Your task to perform on an android device: add a label to a message in the gmail app Image 0: 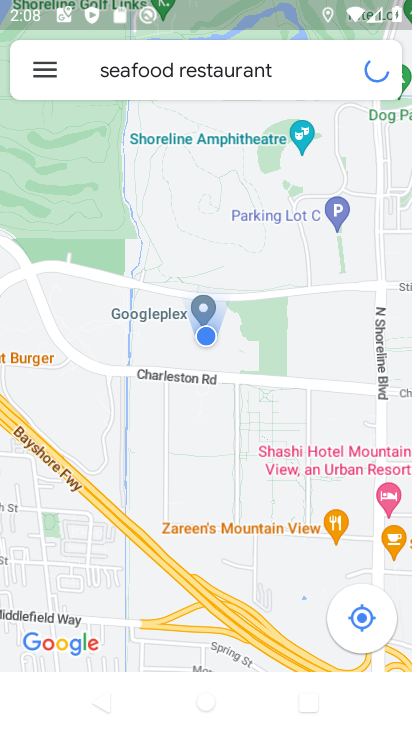
Step 0: press home button
Your task to perform on an android device: add a label to a message in the gmail app Image 1: 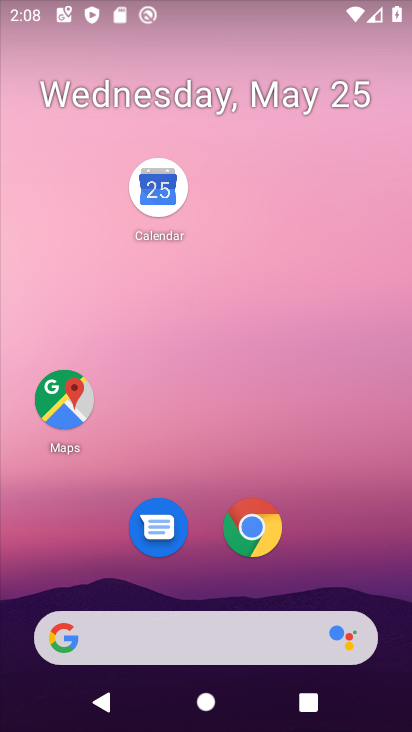
Step 1: drag from (348, 596) to (308, 119)
Your task to perform on an android device: add a label to a message in the gmail app Image 2: 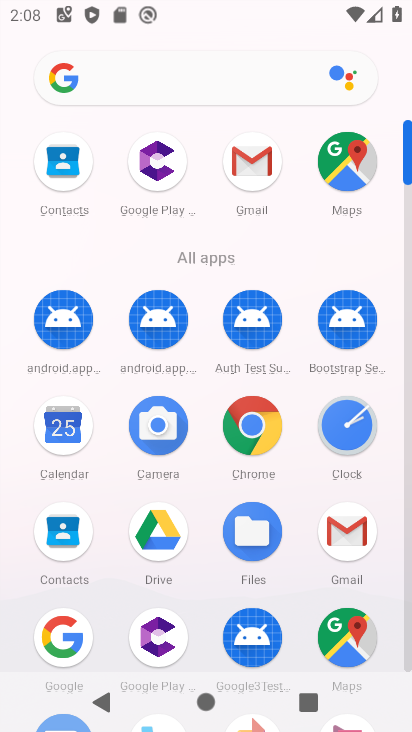
Step 2: click (257, 168)
Your task to perform on an android device: add a label to a message in the gmail app Image 3: 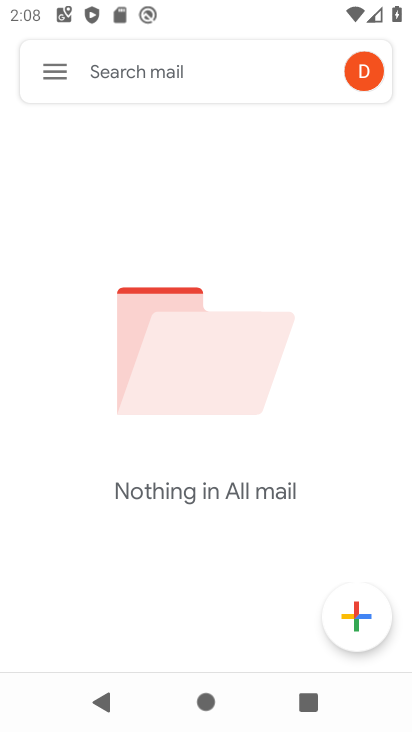
Step 3: task complete